Your task to perform on an android device: Open the map Image 0: 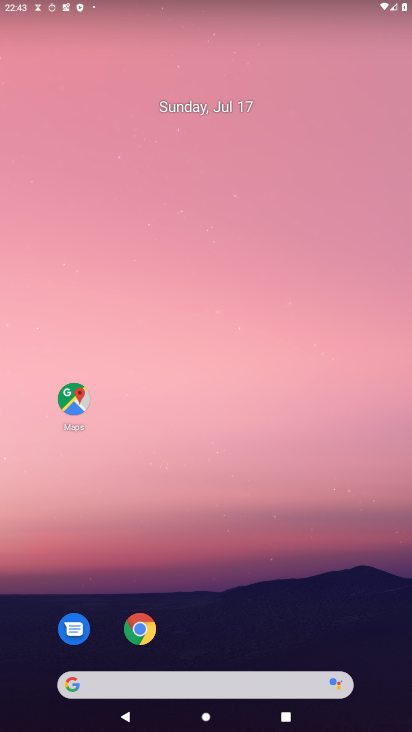
Step 0: drag from (229, 724) to (233, 140)
Your task to perform on an android device: Open the map Image 1: 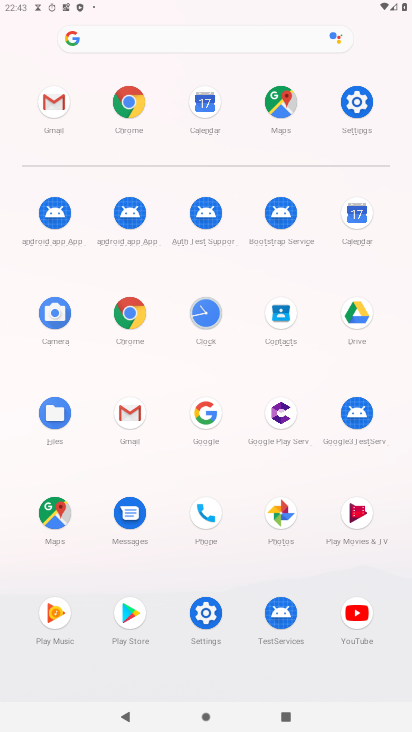
Step 1: click (60, 519)
Your task to perform on an android device: Open the map Image 2: 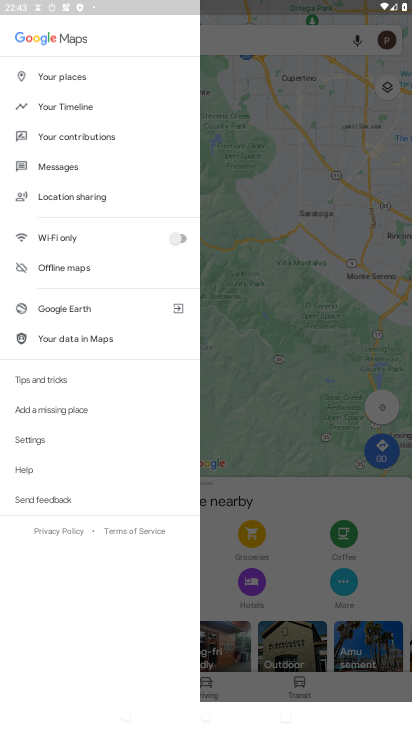
Step 2: task complete